Your task to perform on an android device: Go to Android settings Image 0: 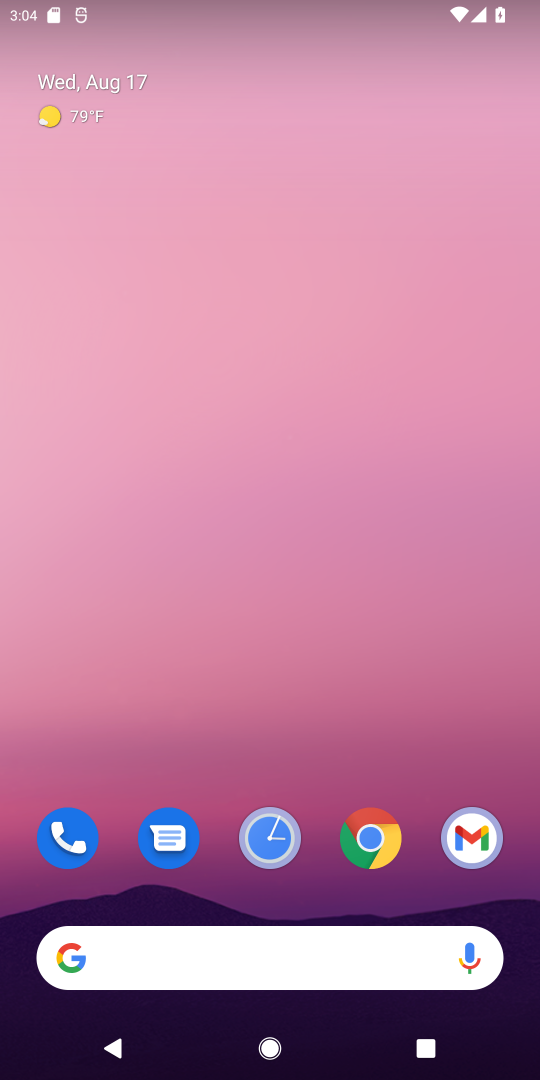
Step 0: drag from (288, 782) to (312, 436)
Your task to perform on an android device: Go to Android settings Image 1: 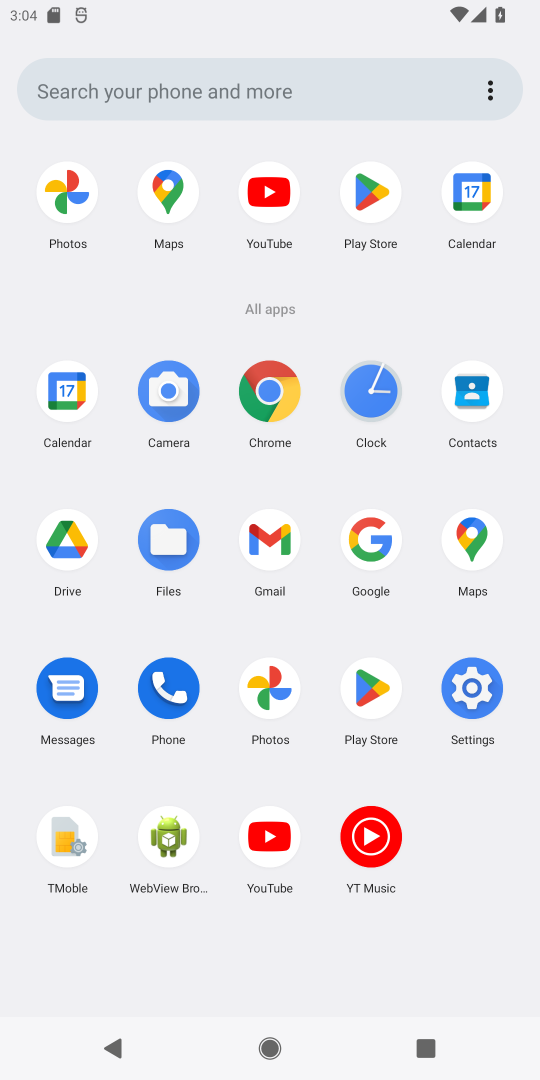
Step 1: click (466, 697)
Your task to perform on an android device: Go to Android settings Image 2: 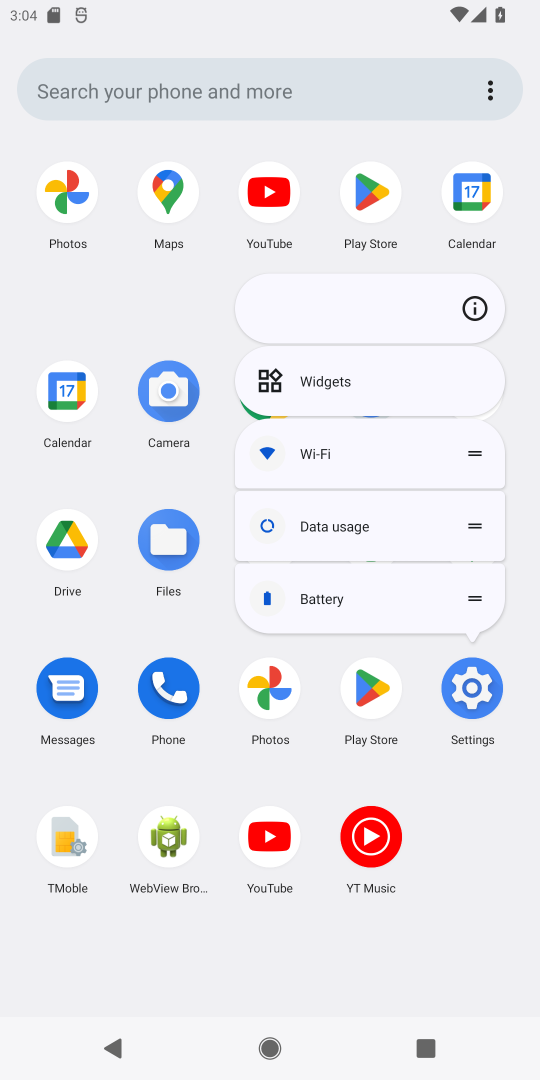
Step 2: click (446, 687)
Your task to perform on an android device: Go to Android settings Image 3: 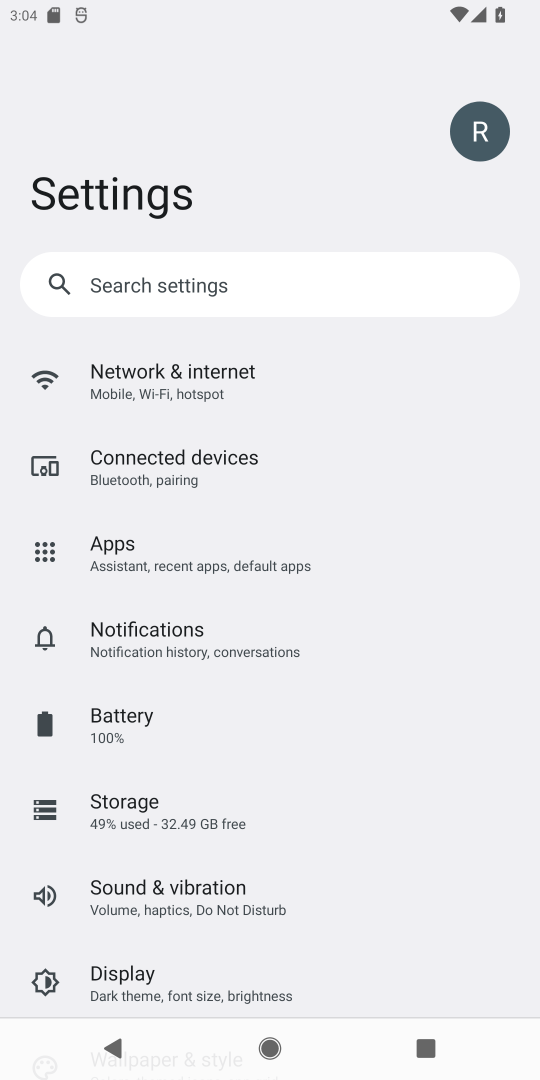
Step 3: task complete